Your task to perform on an android device: Show the shopping cart on amazon.com. Add razer deathadder to the cart on amazon.com, then select checkout. Image 0: 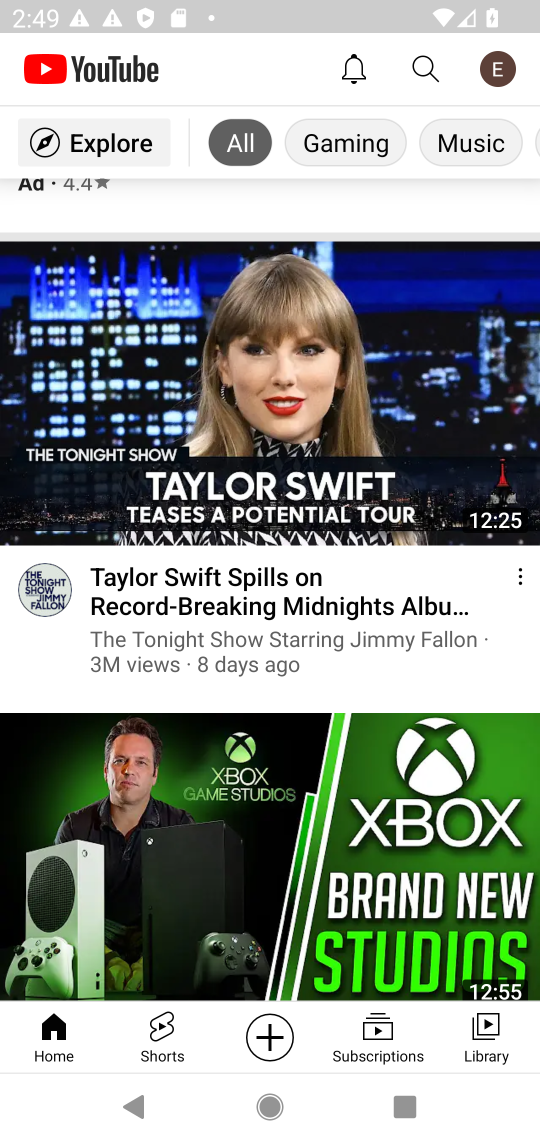
Step 0: press home button
Your task to perform on an android device: Show the shopping cart on amazon.com. Add razer deathadder to the cart on amazon.com, then select checkout. Image 1: 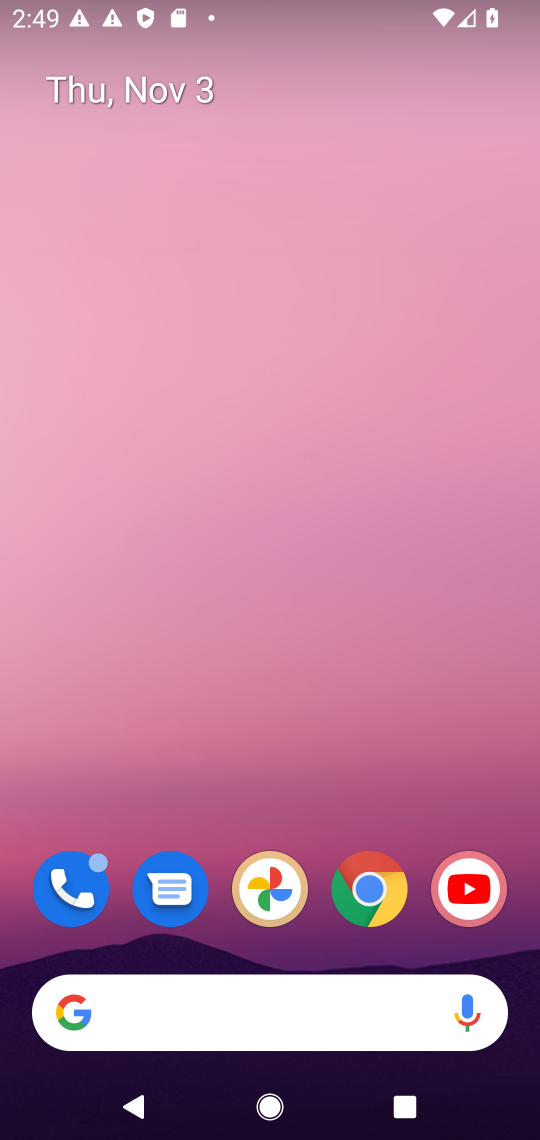
Step 1: click (354, 909)
Your task to perform on an android device: Show the shopping cart on amazon.com. Add razer deathadder to the cart on amazon.com, then select checkout. Image 2: 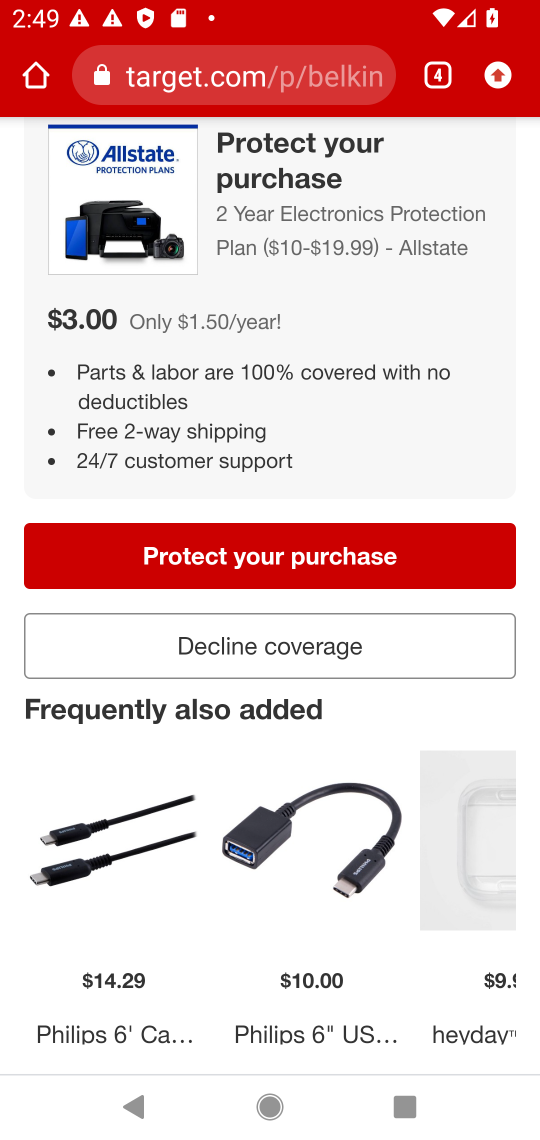
Step 2: click (466, 77)
Your task to perform on an android device: Show the shopping cart on amazon.com. Add razer deathadder to the cart on amazon.com, then select checkout. Image 3: 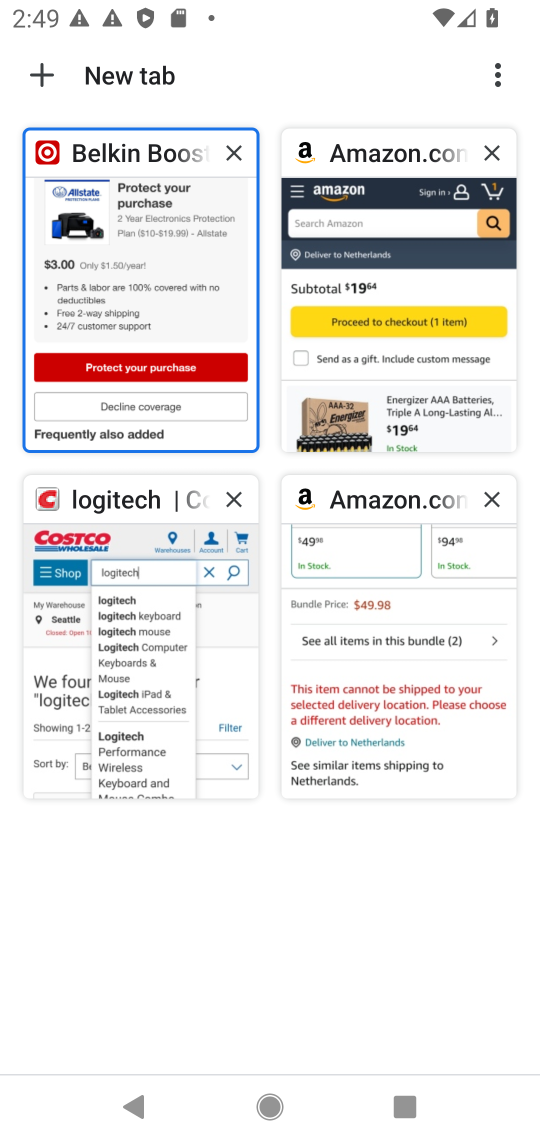
Step 3: click (391, 287)
Your task to perform on an android device: Show the shopping cart on amazon.com. Add razer deathadder to the cart on amazon.com, then select checkout. Image 4: 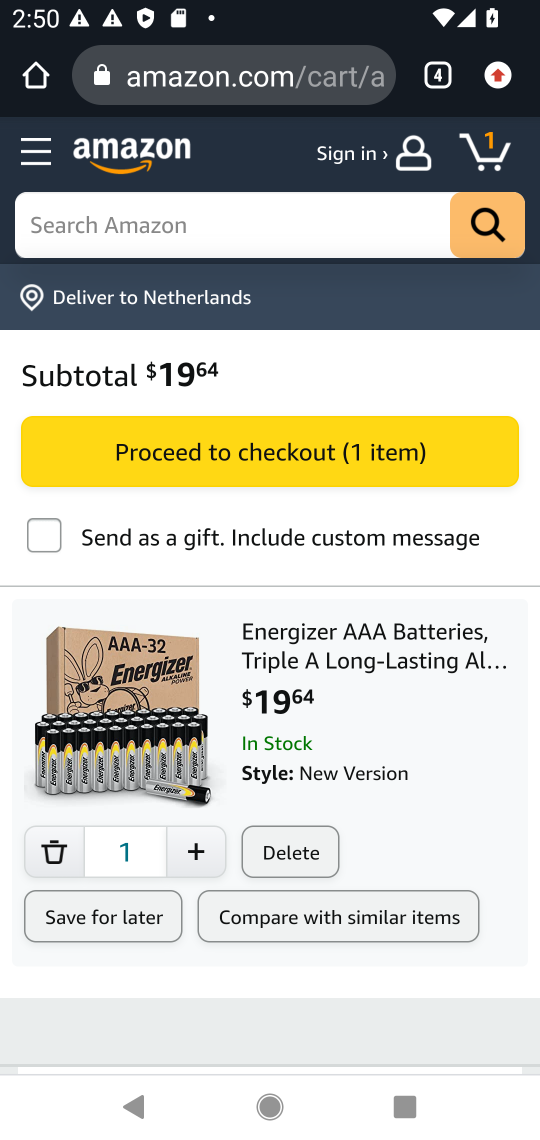
Step 4: click (133, 219)
Your task to perform on an android device: Show the shopping cart on amazon.com. Add razer deathadder to the cart on amazon.com, then select checkout. Image 5: 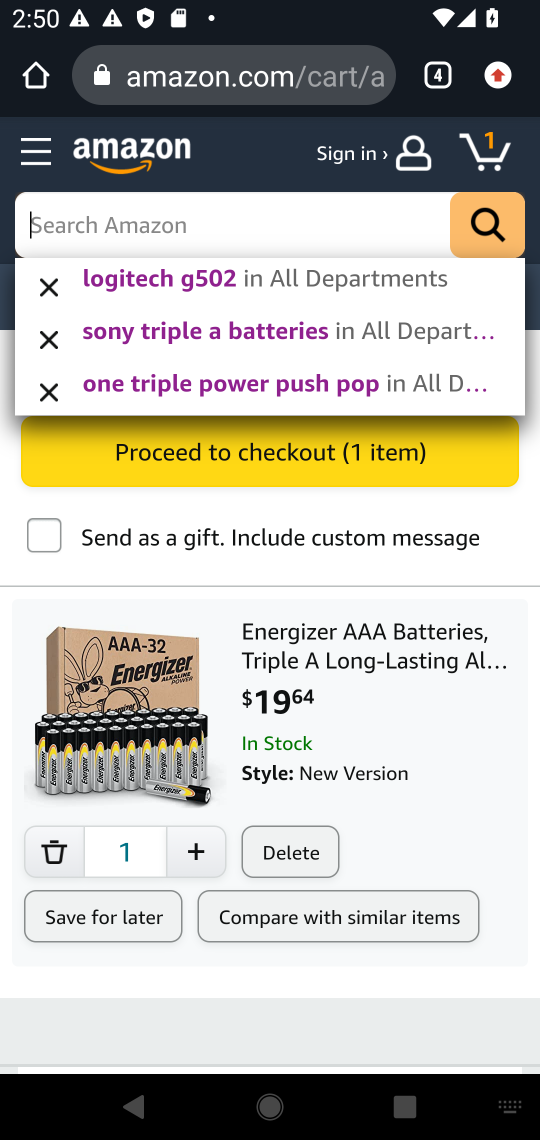
Step 5: click (226, 220)
Your task to perform on an android device: Show the shopping cart on amazon.com. Add razer deathadder to the cart on amazon.com, then select checkout. Image 6: 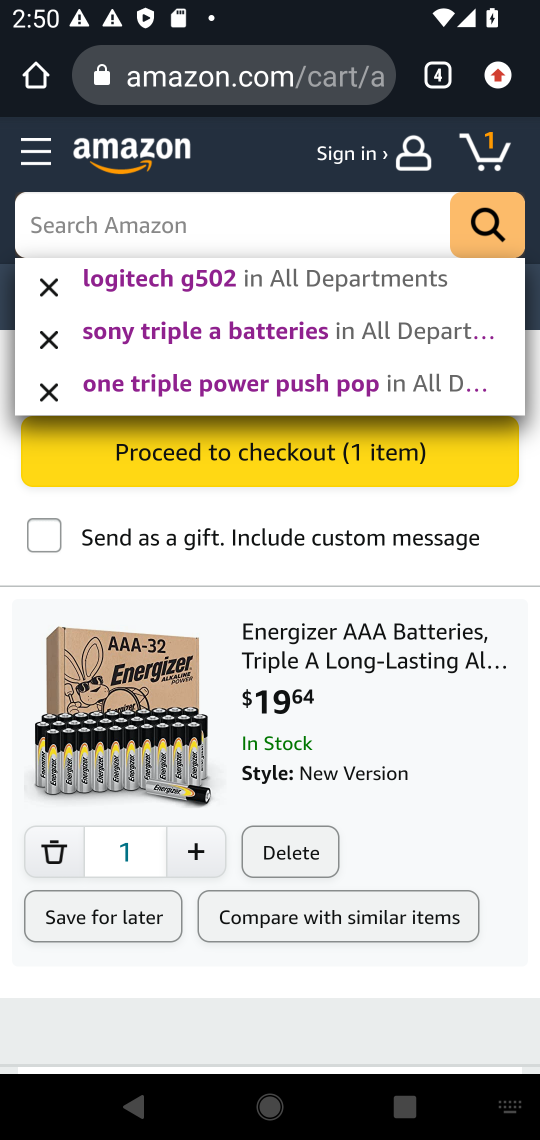
Step 6: type "razer deathadder "
Your task to perform on an android device: Show the shopping cart on amazon.com. Add razer deathadder to the cart on amazon.com, then select checkout. Image 7: 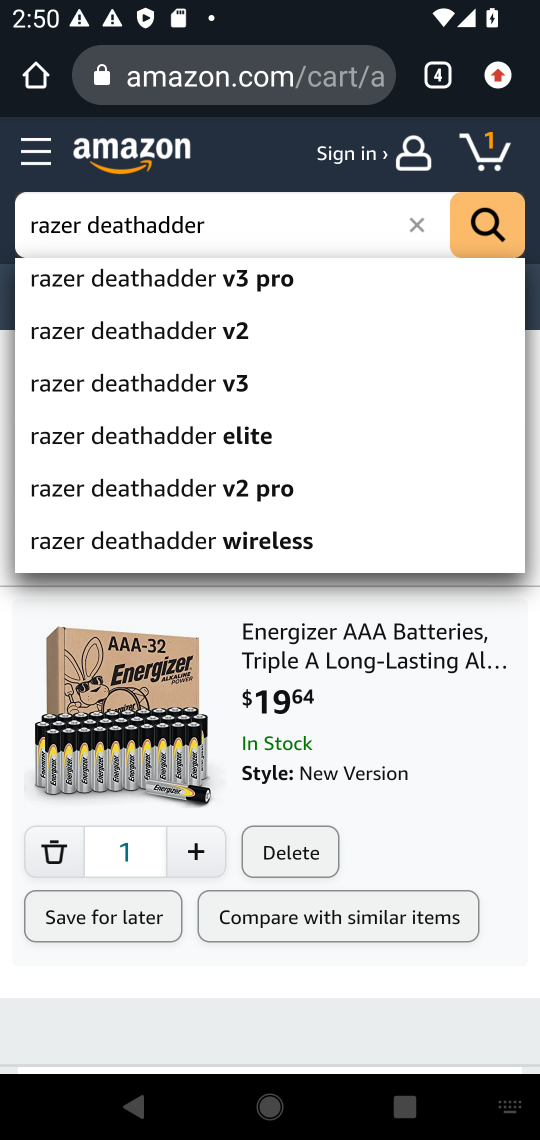
Step 7: click (158, 268)
Your task to perform on an android device: Show the shopping cart on amazon.com. Add razer deathadder to the cart on amazon.com, then select checkout. Image 8: 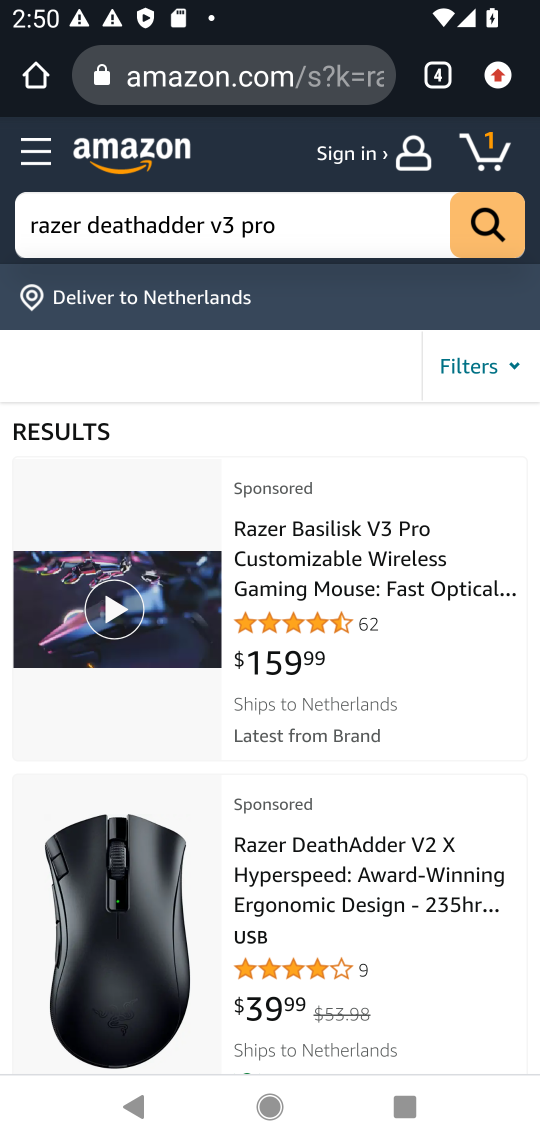
Step 8: click (161, 609)
Your task to perform on an android device: Show the shopping cart on amazon.com. Add razer deathadder to the cart on amazon.com, then select checkout. Image 9: 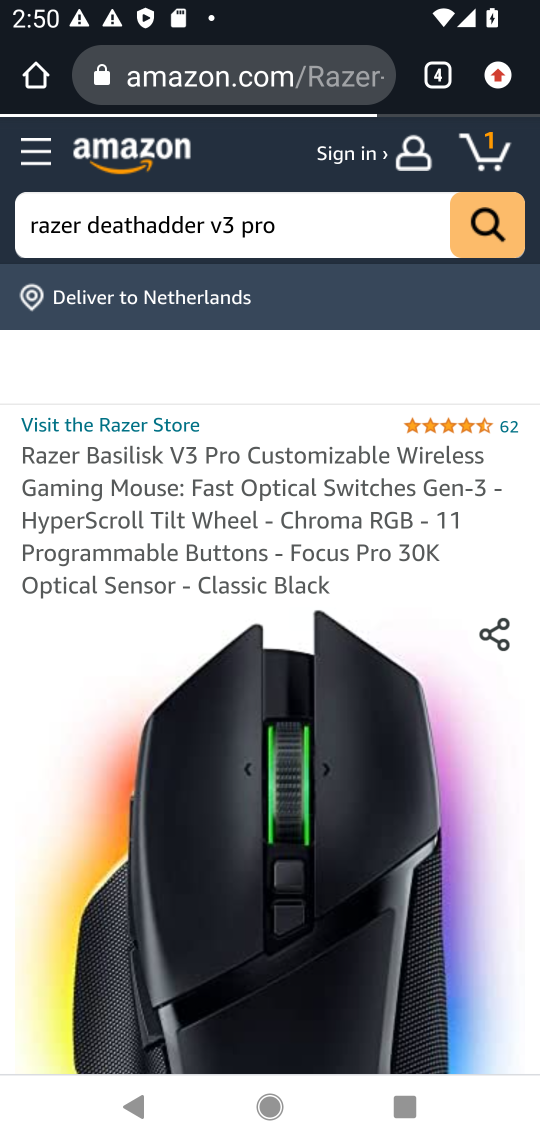
Step 9: drag from (302, 824) to (237, 245)
Your task to perform on an android device: Show the shopping cart on amazon.com. Add razer deathadder to the cart on amazon.com, then select checkout. Image 10: 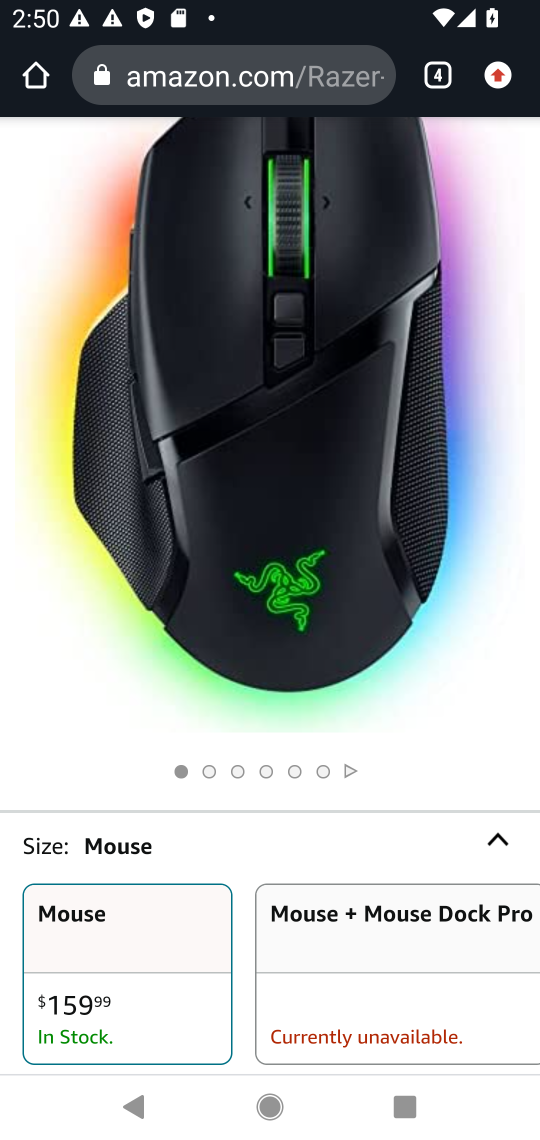
Step 10: click (127, 958)
Your task to perform on an android device: Show the shopping cart on amazon.com. Add razer deathadder to the cart on amazon.com, then select checkout. Image 11: 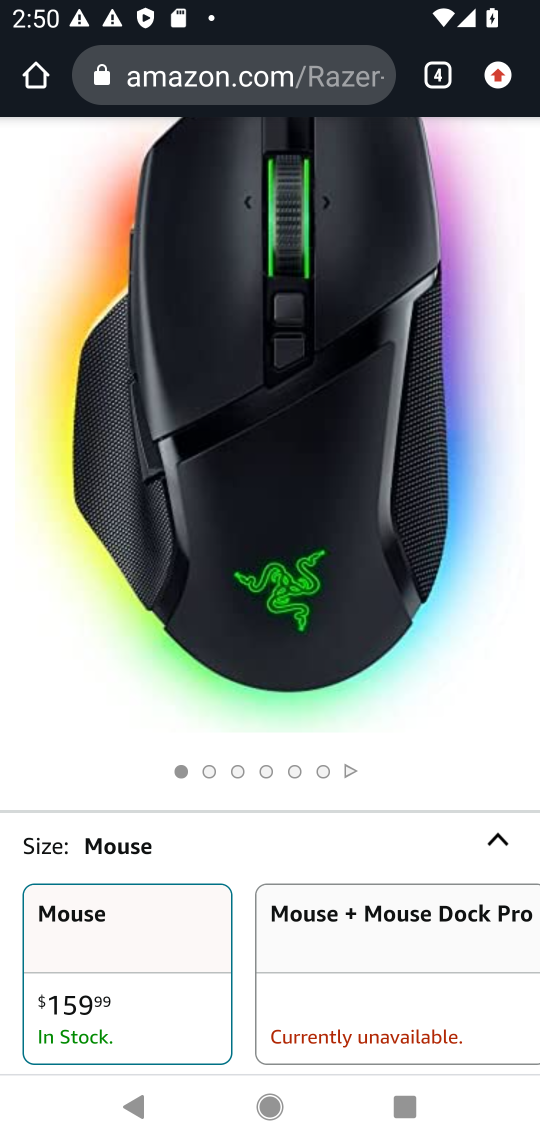
Step 11: drag from (209, 909) to (422, 378)
Your task to perform on an android device: Show the shopping cart on amazon.com. Add razer deathadder to the cart on amazon.com, then select checkout. Image 12: 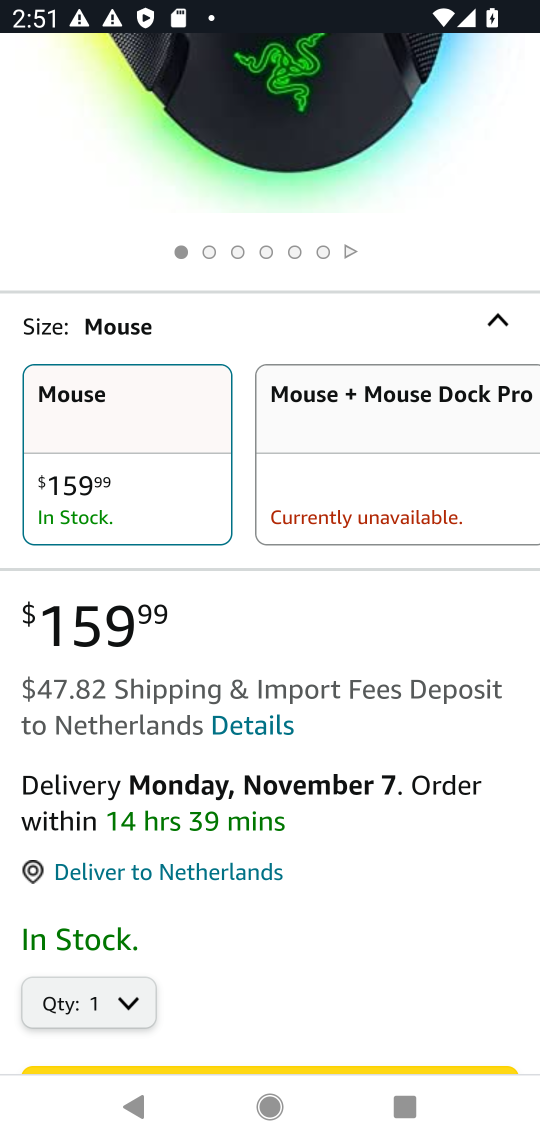
Step 12: drag from (346, 869) to (373, 136)
Your task to perform on an android device: Show the shopping cart on amazon.com. Add razer deathadder to the cart on amazon.com, then select checkout. Image 13: 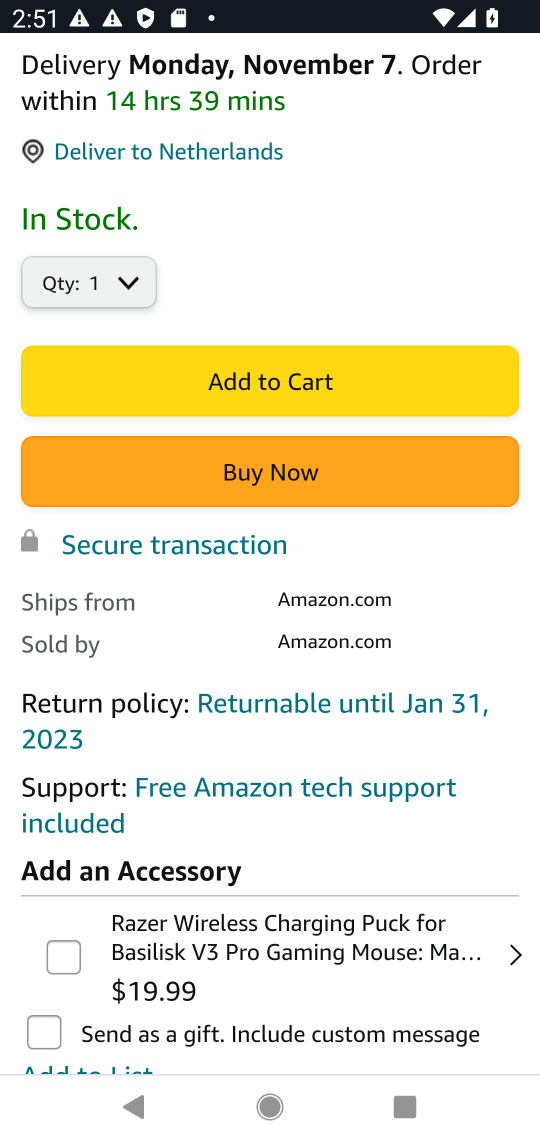
Step 13: click (308, 393)
Your task to perform on an android device: Show the shopping cart on amazon.com. Add razer deathadder to the cart on amazon.com, then select checkout. Image 14: 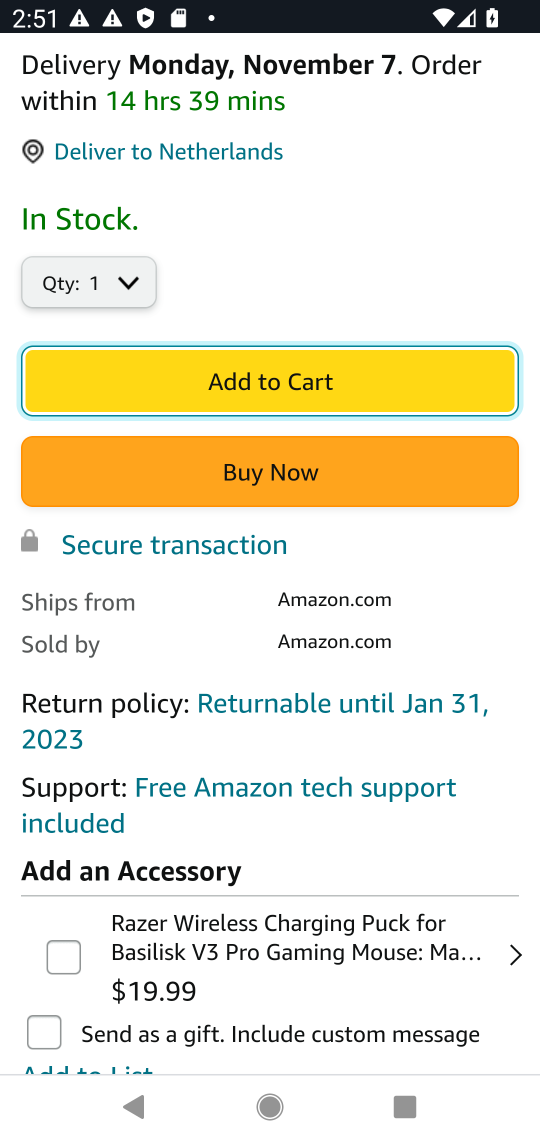
Step 14: click (244, 390)
Your task to perform on an android device: Show the shopping cart on amazon.com. Add razer deathadder to the cart on amazon.com, then select checkout. Image 15: 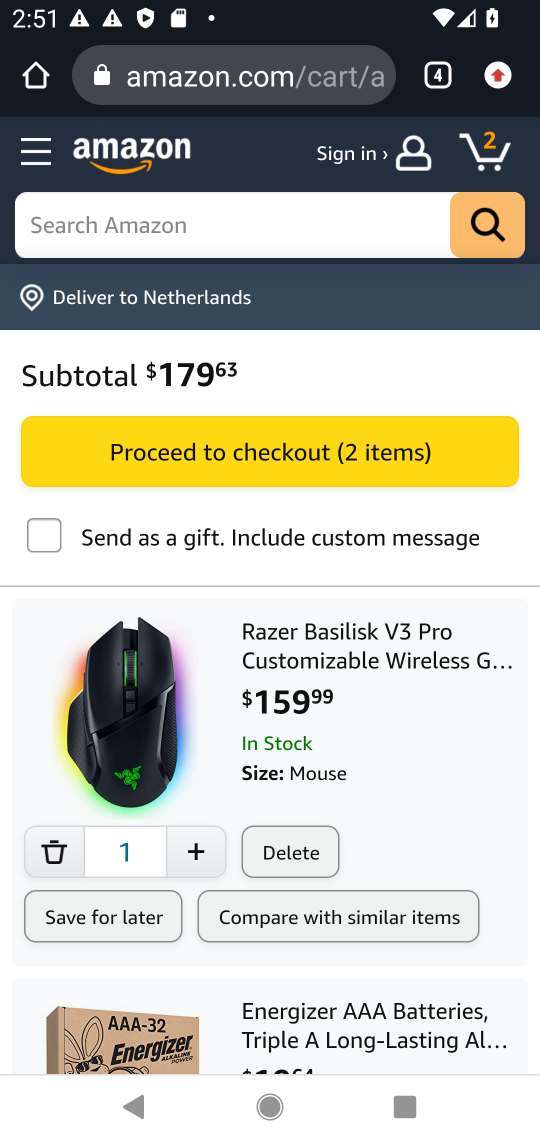
Step 15: click (165, 438)
Your task to perform on an android device: Show the shopping cart on amazon.com. Add razer deathadder to the cart on amazon.com, then select checkout. Image 16: 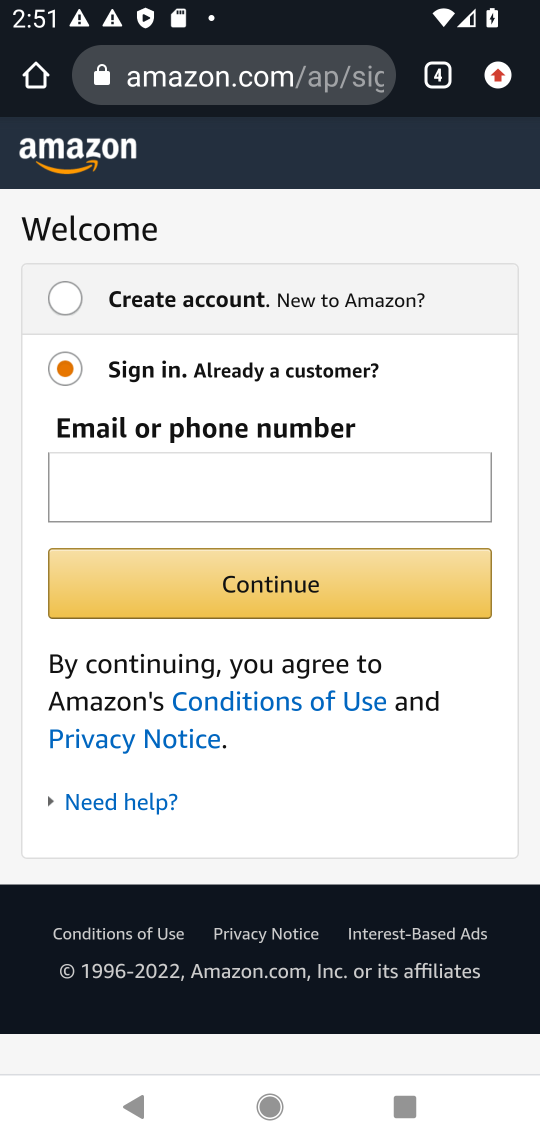
Step 16: task complete